Your task to perform on an android device: Open Google Chrome and click the shortcut for Amazon.com Image 0: 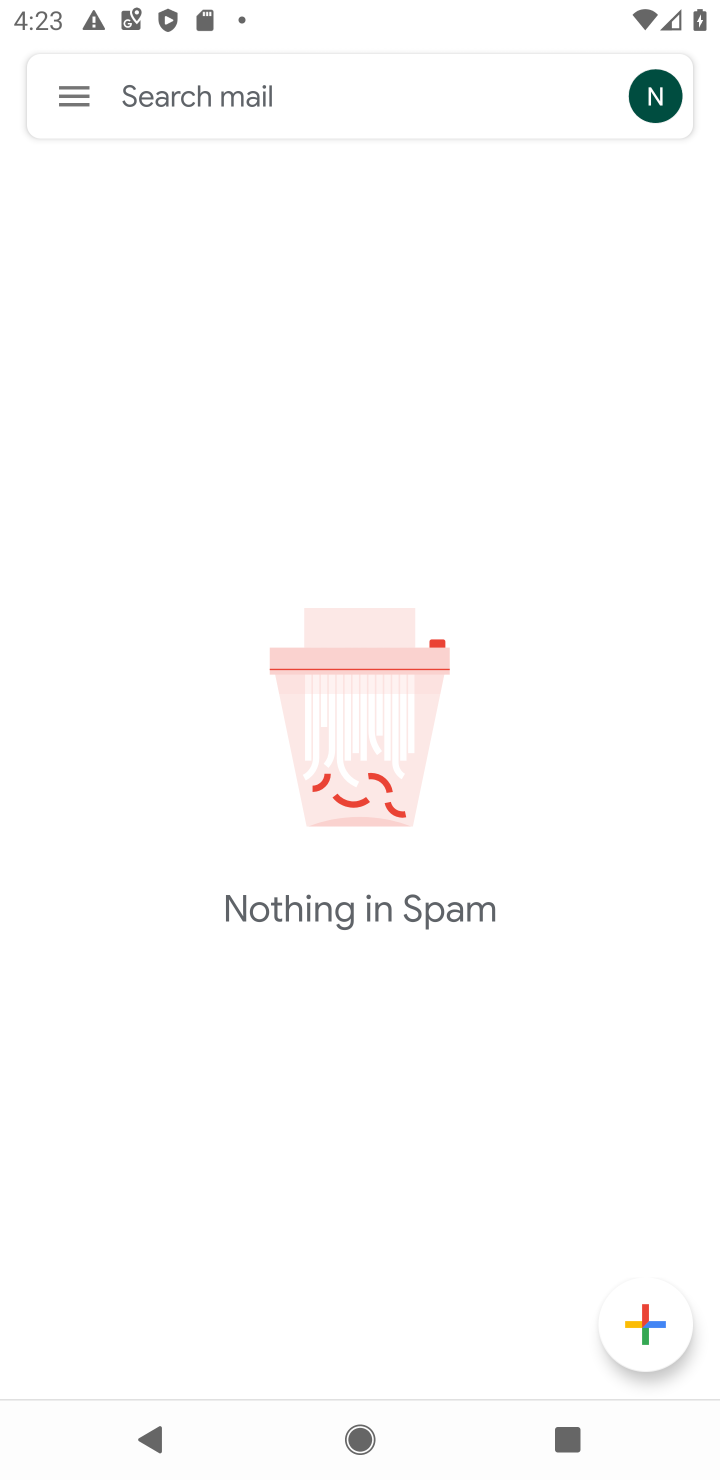
Step 0: press home button
Your task to perform on an android device: Open Google Chrome and click the shortcut for Amazon.com Image 1: 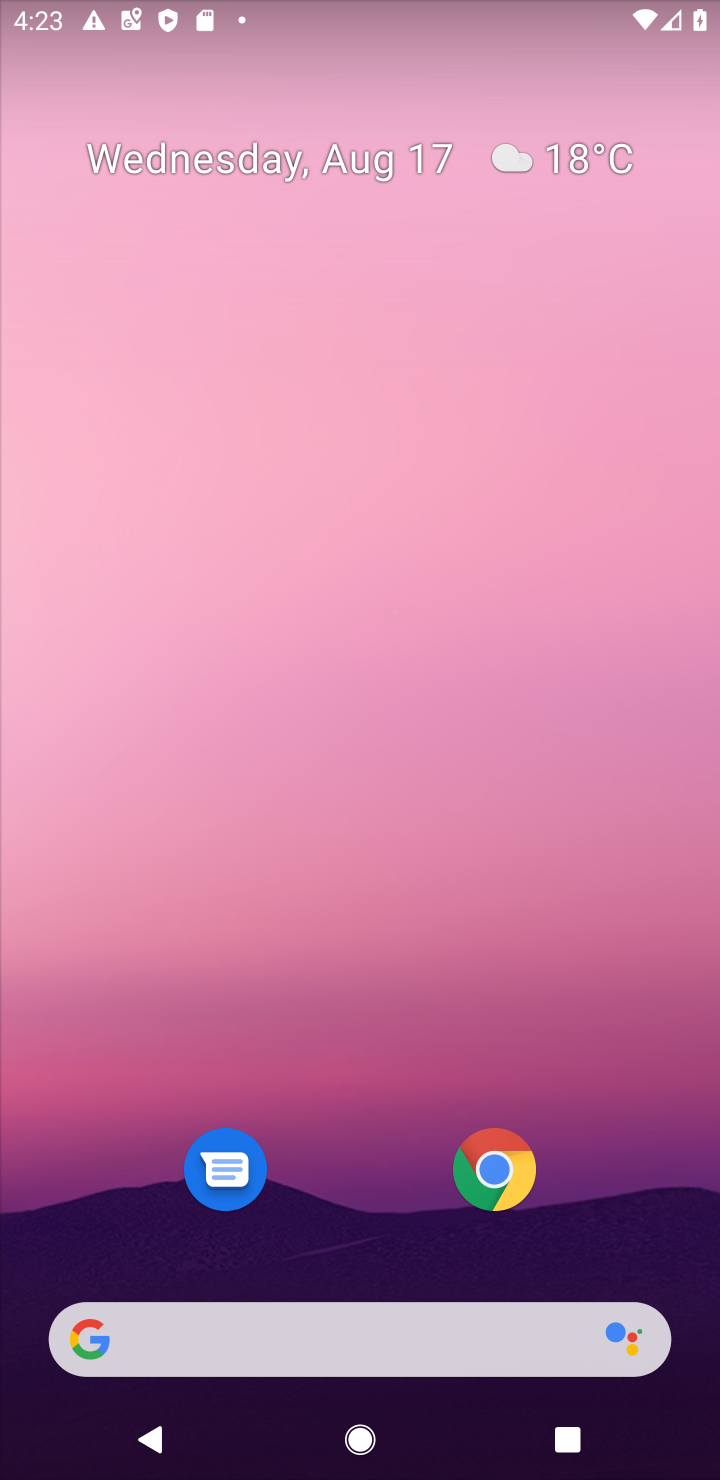
Step 1: drag from (378, 1166) to (230, 127)
Your task to perform on an android device: Open Google Chrome and click the shortcut for Amazon.com Image 2: 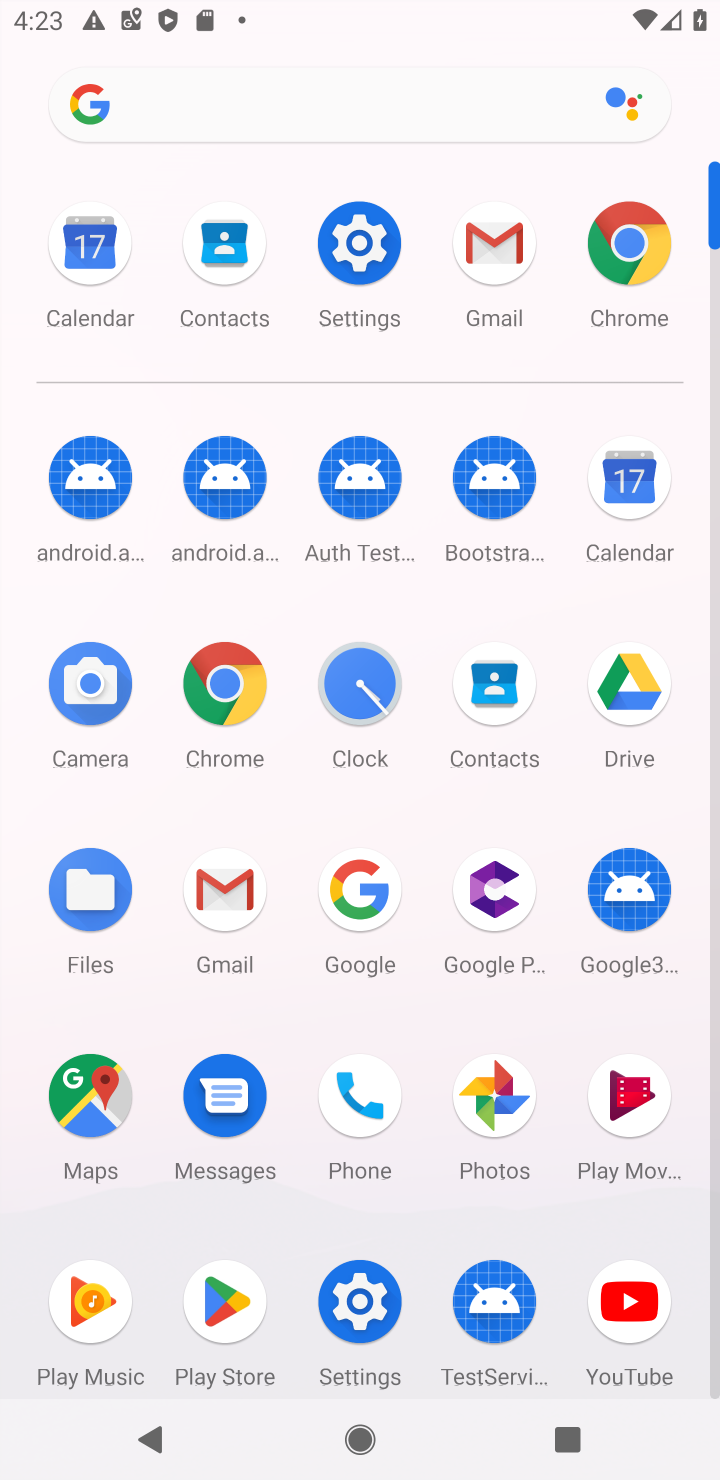
Step 2: click (211, 702)
Your task to perform on an android device: Open Google Chrome and click the shortcut for Amazon.com Image 3: 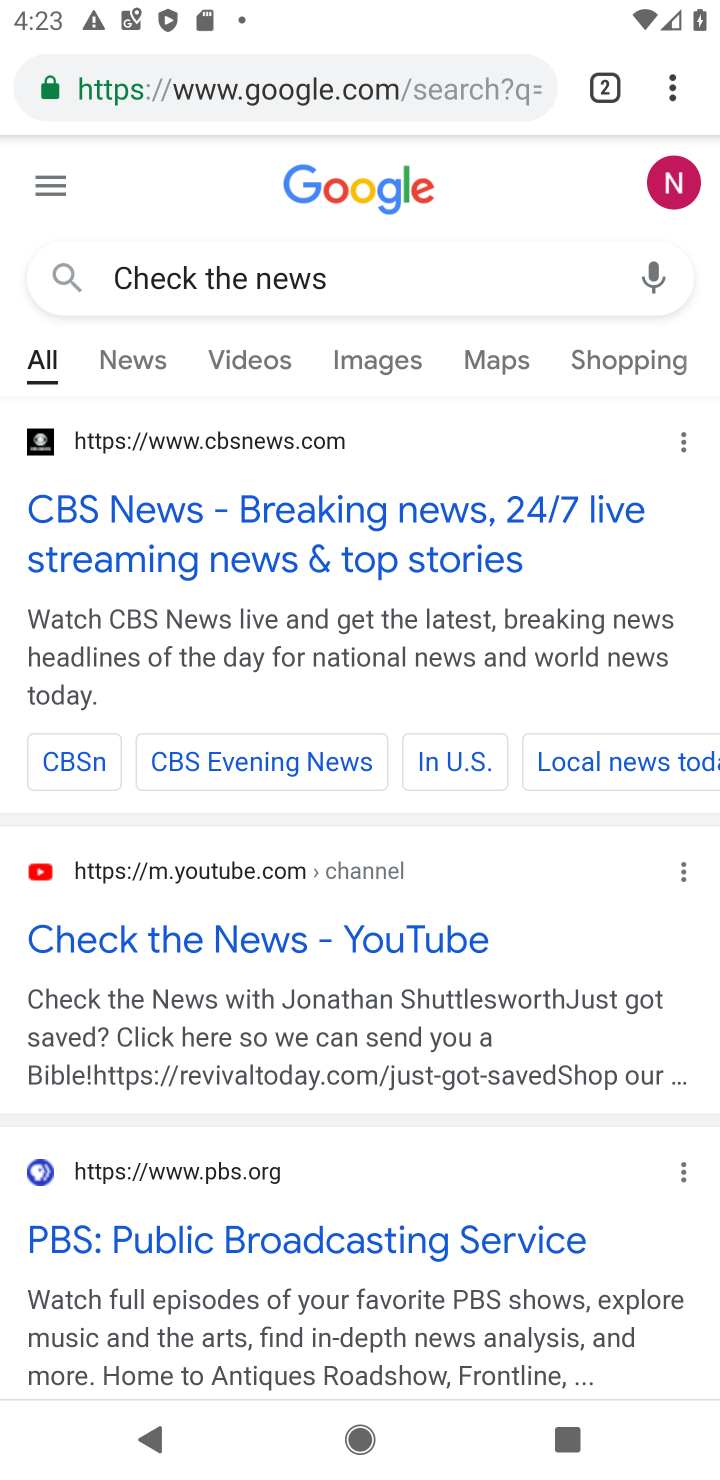
Step 3: click (669, 81)
Your task to perform on an android device: Open Google Chrome and click the shortcut for Amazon.com Image 4: 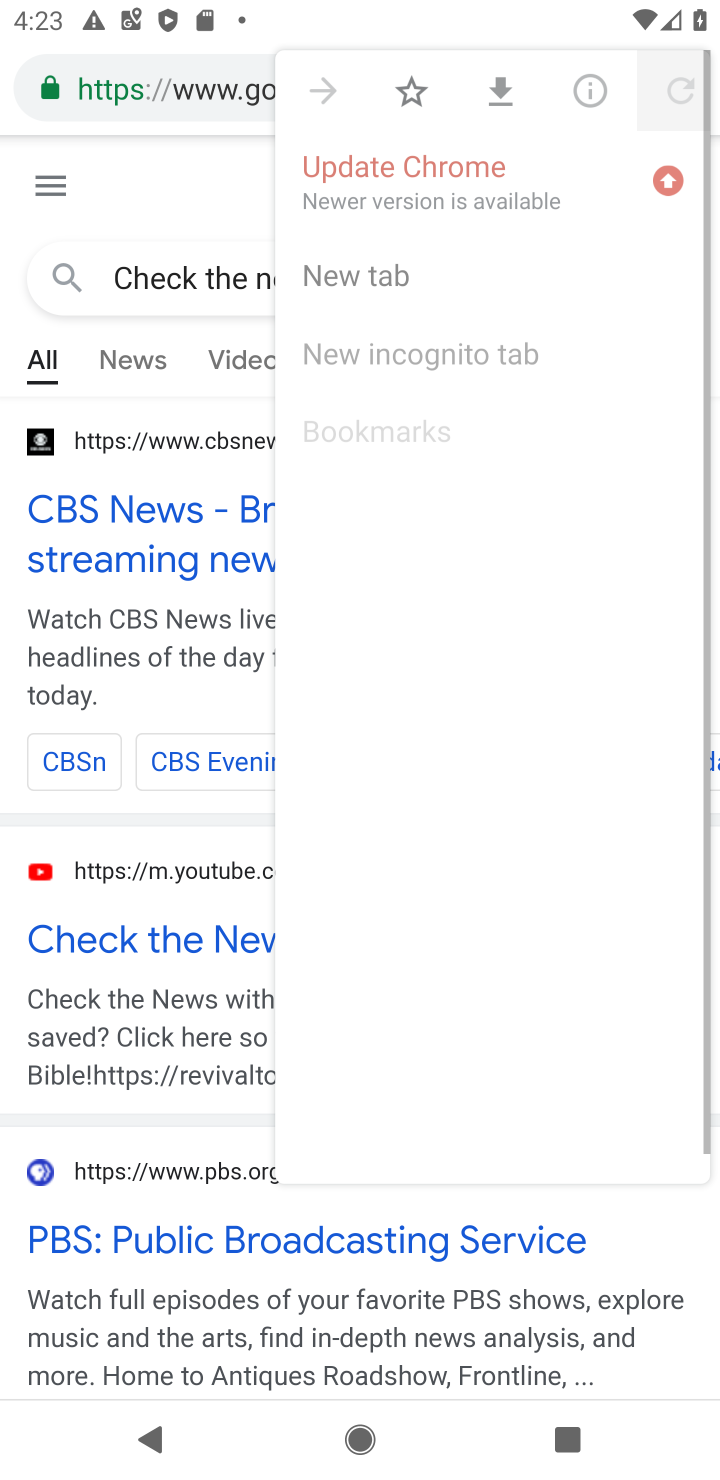
Step 4: drag from (669, 81) to (425, 293)
Your task to perform on an android device: Open Google Chrome and click the shortcut for Amazon.com Image 5: 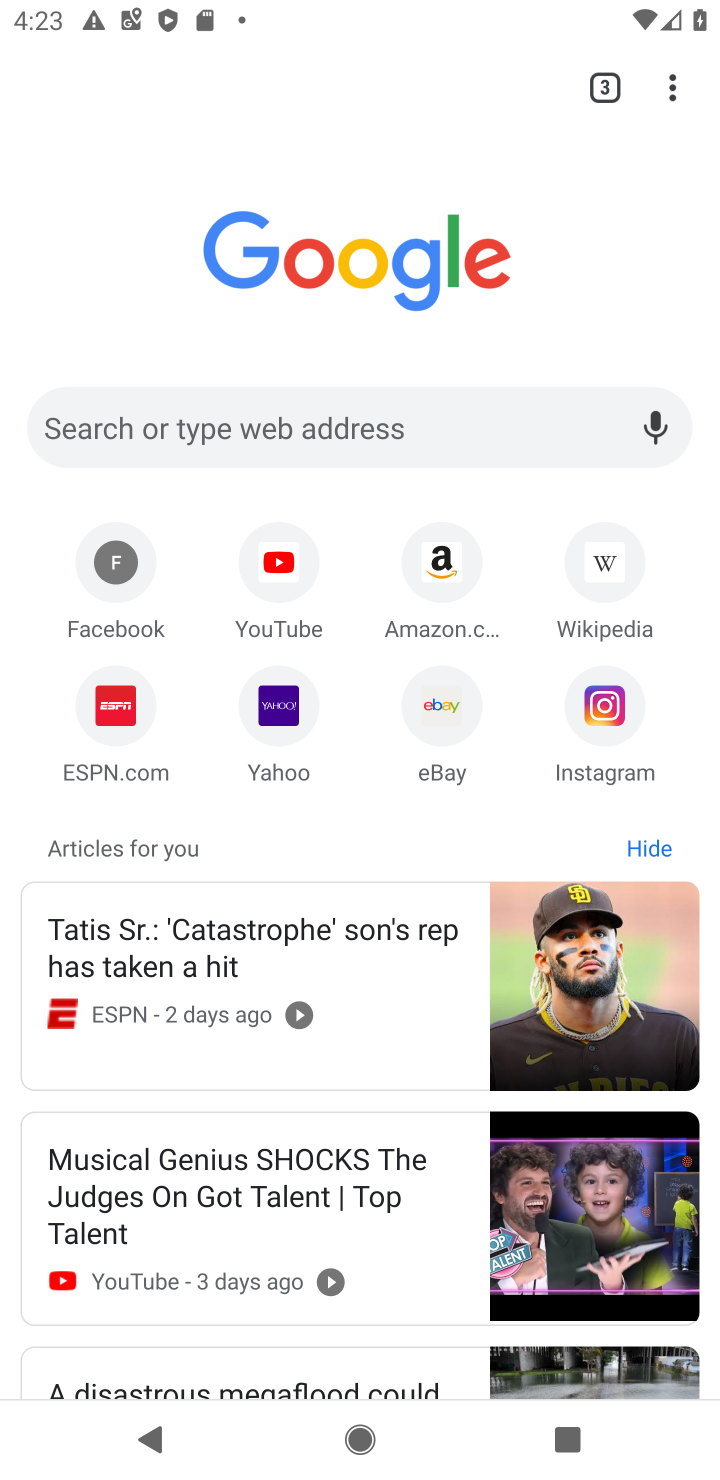
Step 5: click (445, 571)
Your task to perform on an android device: Open Google Chrome and click the shortcut for Amazon.com Image 6: 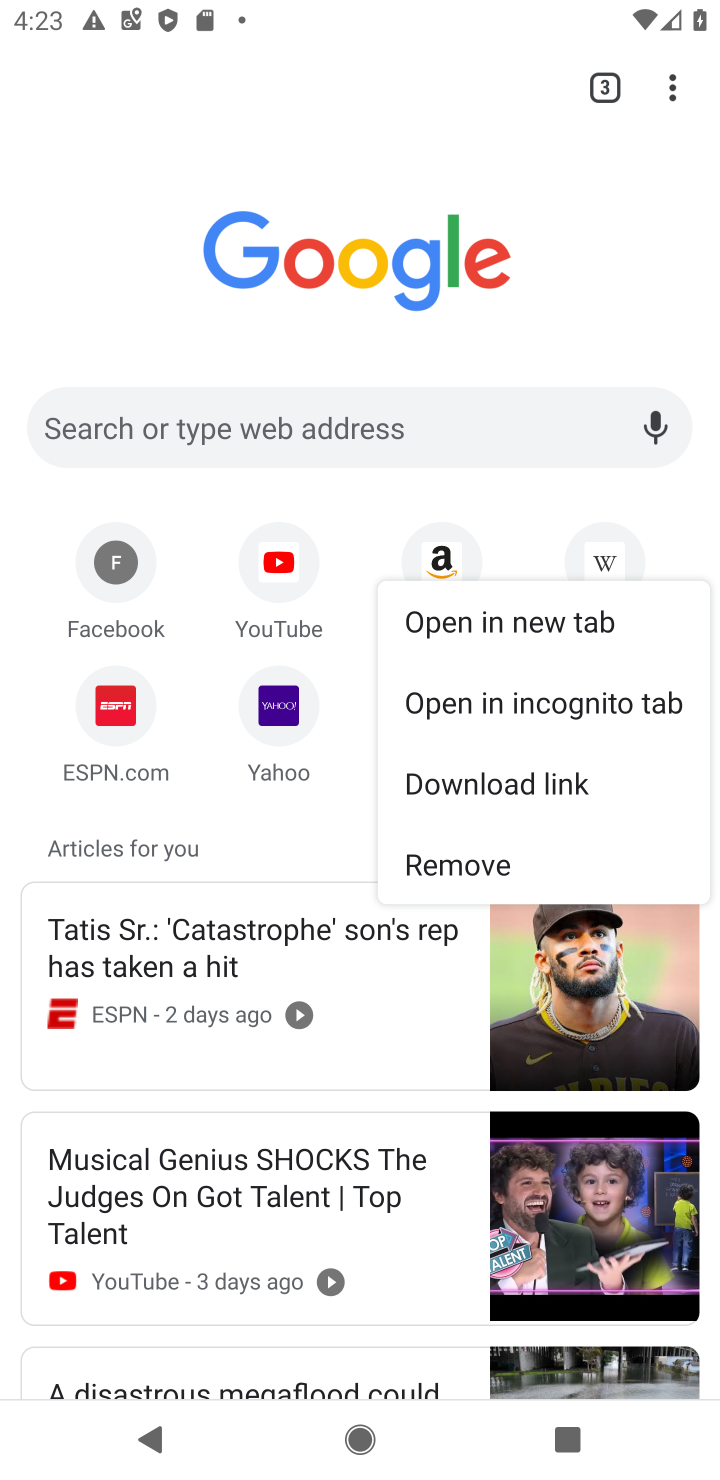
Step 6: click (439, 565)
Your task to perform on an android device: Open Google Chrome and click the shortcut for Amazon.com Image 7: 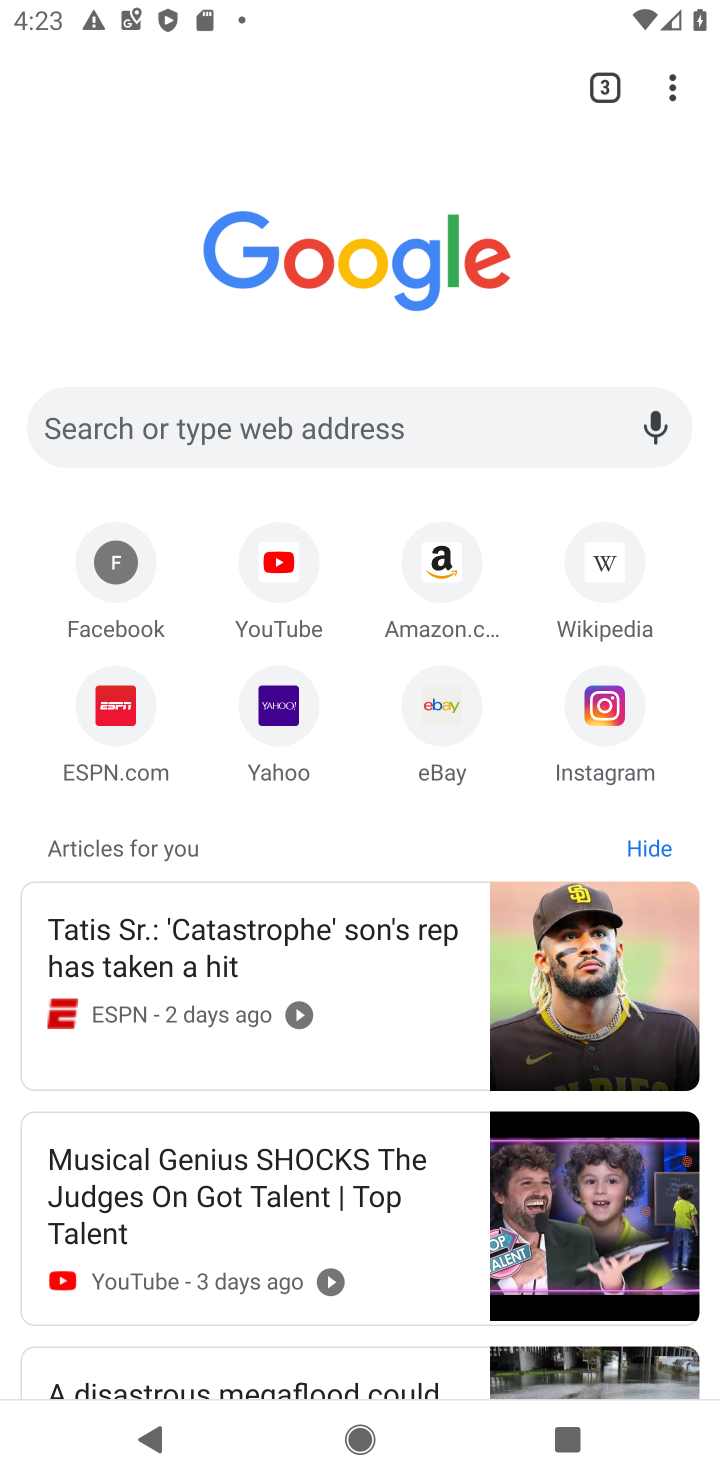
Step 7: click (439, 565)
Your task to perform on an android device: Open Google Chrome and click the shortcut for Amazon.com Image 8: 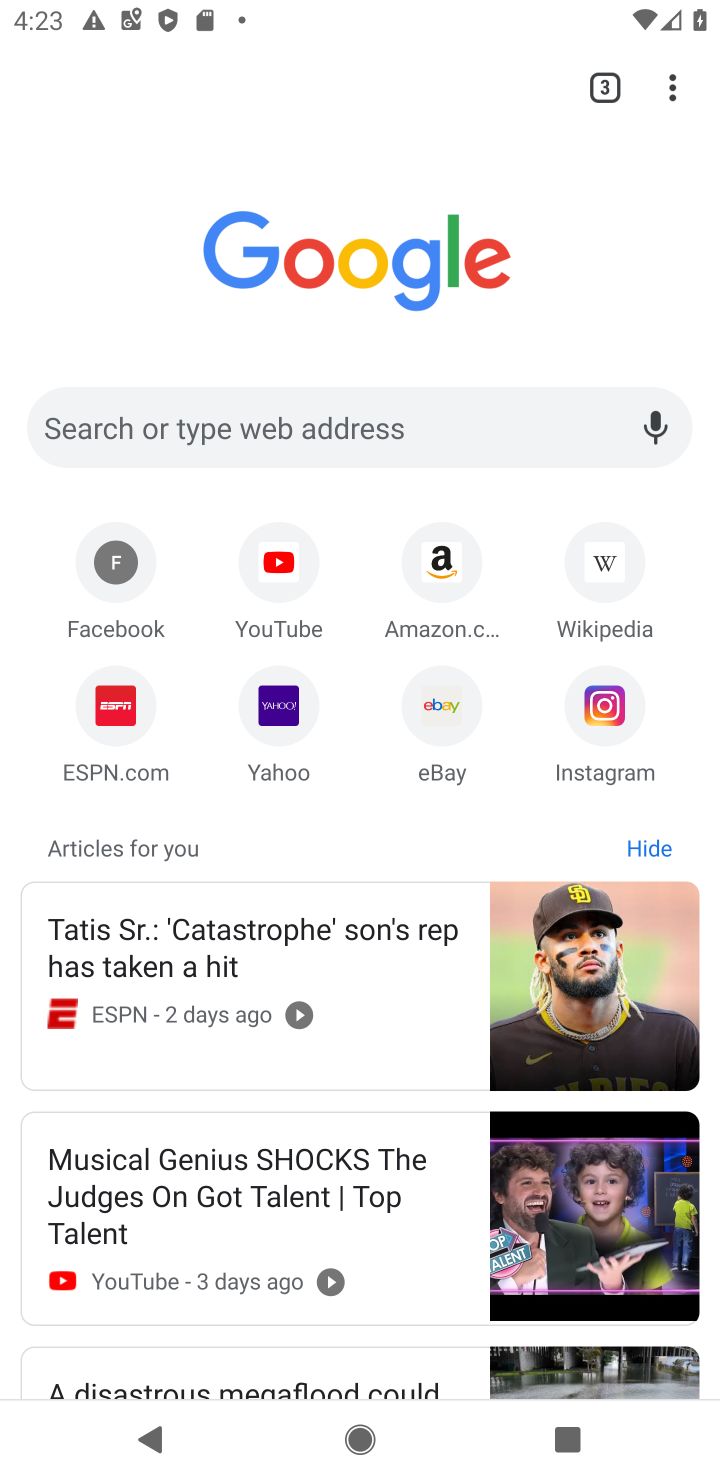
Step 8: click (439, 565)
Your task to perform on an android device: Open Google Chrome and click the shortcut for Amazon.com Image 9: 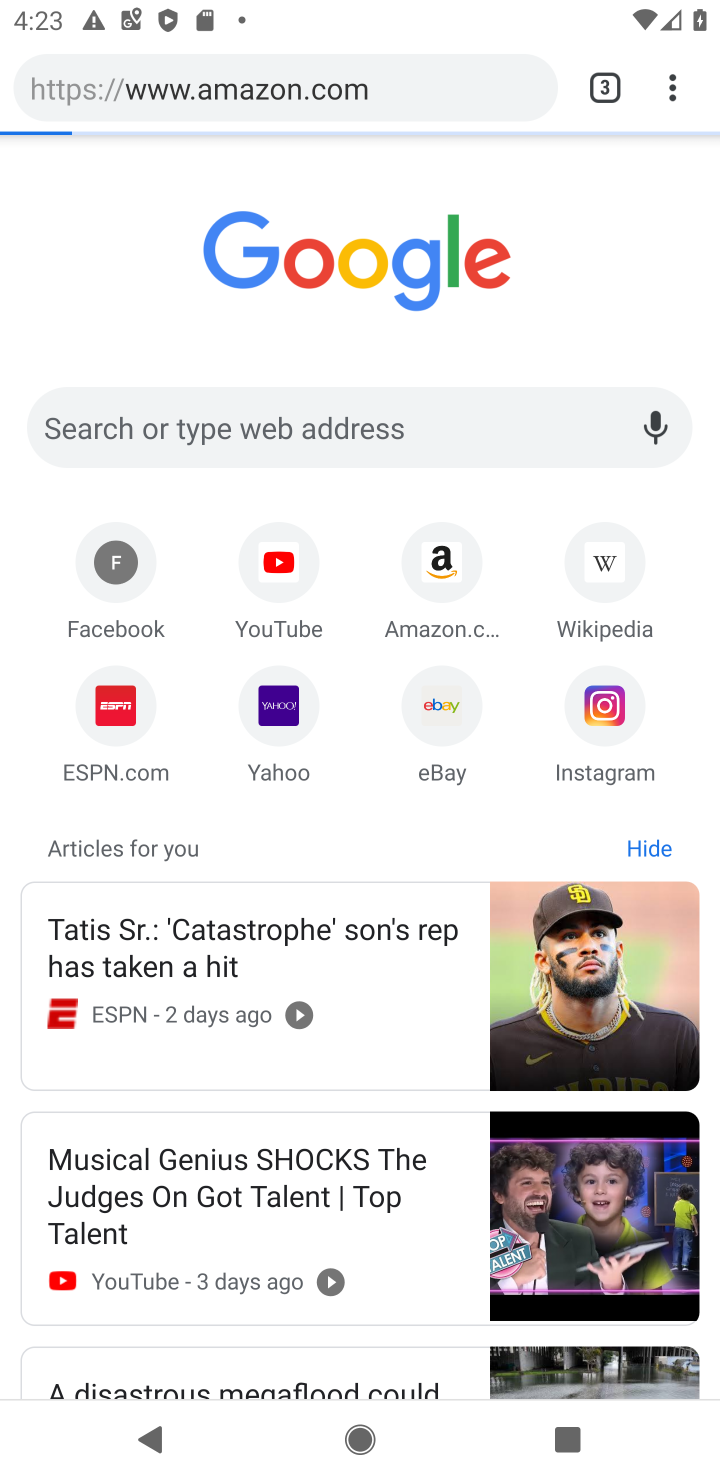
Step 9: click (439, 565)
Your task to perform on an android device: Open Google Chrome and click the shortcut for Amazon.com Image 10: 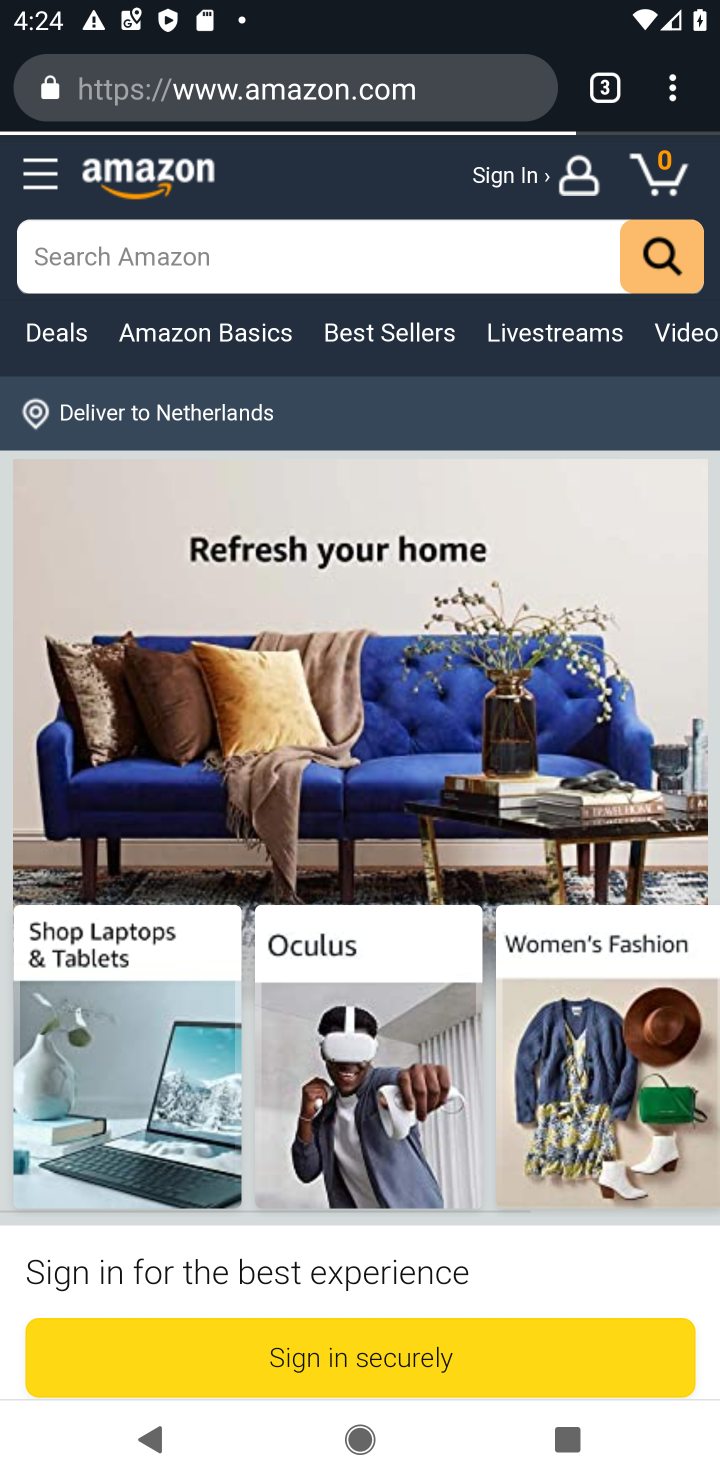
Step 10: task complete